Your task to perform on an android device: delete browsing data in the chrome app Image 0: 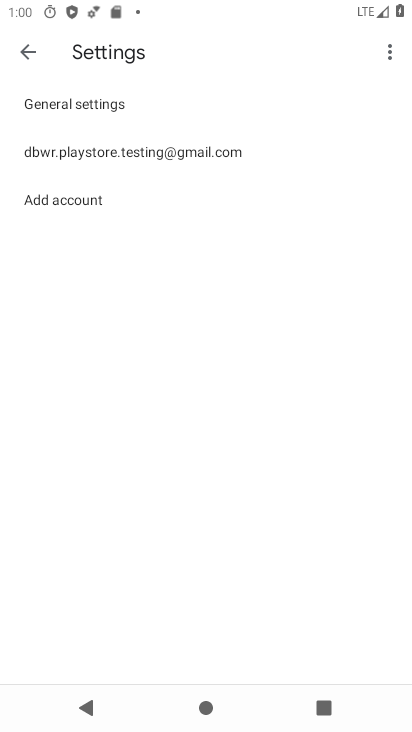
Step 0: press home button
Your task to perform on an android device: delete browsing data in the chrome app Image 1: 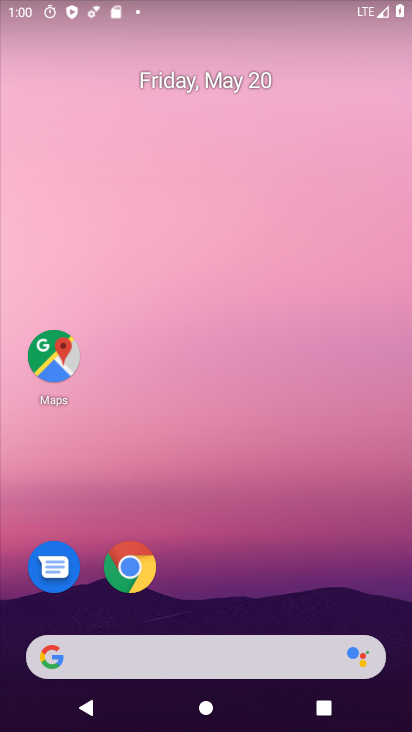
Step 1: click (132, 574)
Your task to perform on an android device: delete browsing data in the chrome app Image 2: 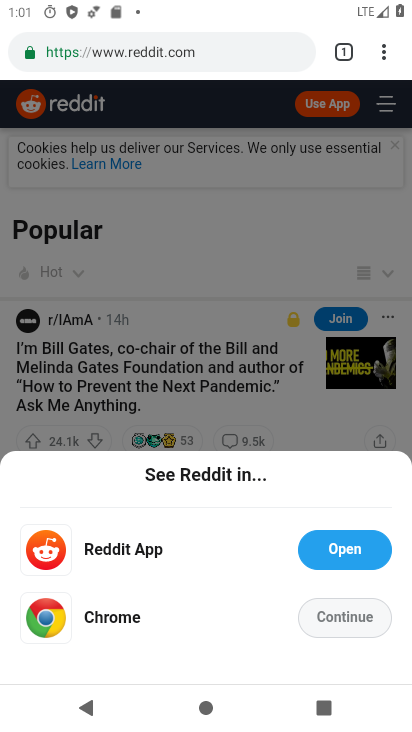
Step 2: click (393, 55)
Your task to perform on an android device: delete browsing data in the chrome app Image 3: 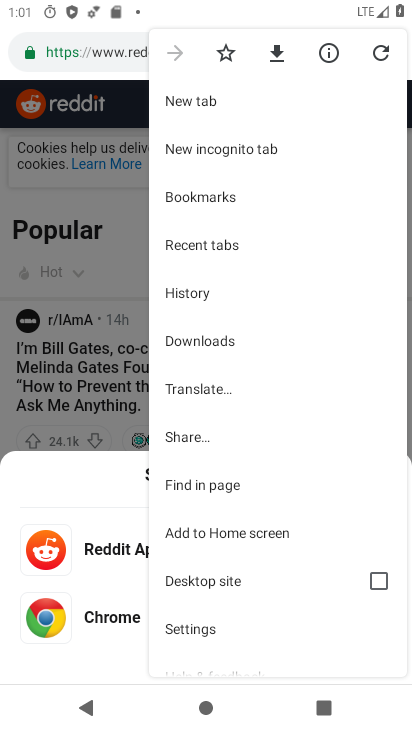
Step 3: click (231, 294)
Your task to perform on an android device: delete browsing data in the chrome app Image 4: 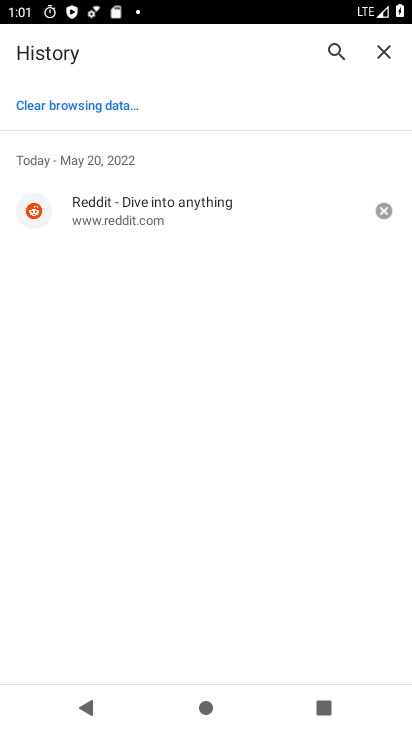
Step 4: click (85, 105)
Your task to perform on an android device: delete browsing data in the chrome app Image 5: 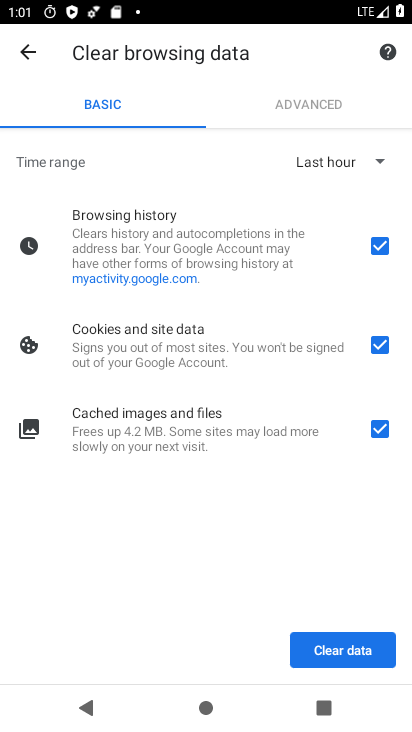
Step 5: click (374, 429)
Your task to perform on an android device: delete browsing data in the chrome app Image 6: 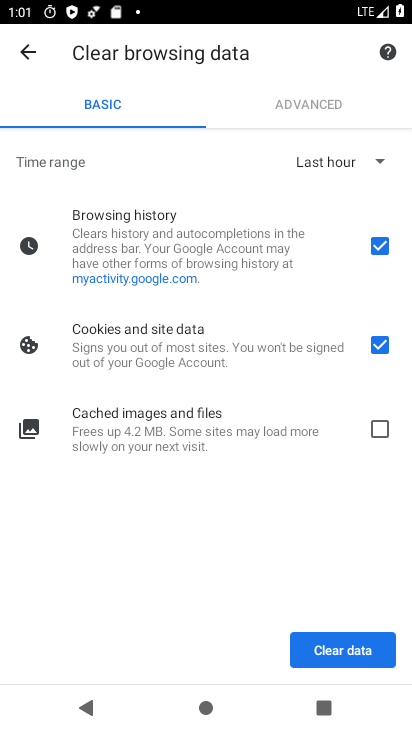
Step 6: click (374, 352)
Your task to perform on an android device: delete browsing data in the chrome app Image 7: 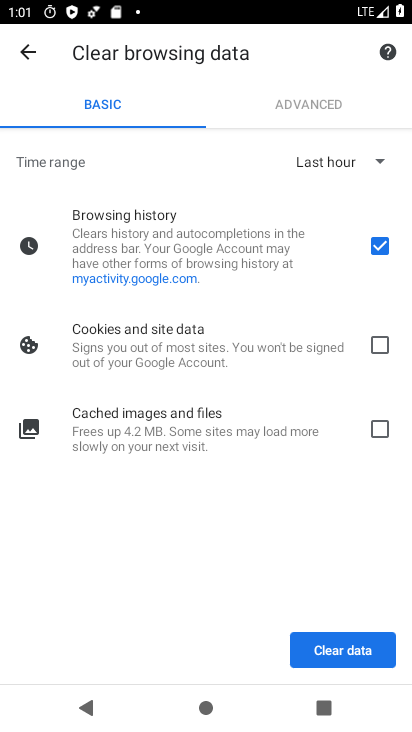
Step 7: click (368, 655)
Your task to perform on an android device: delete browsing data in the chrome app Image 8: 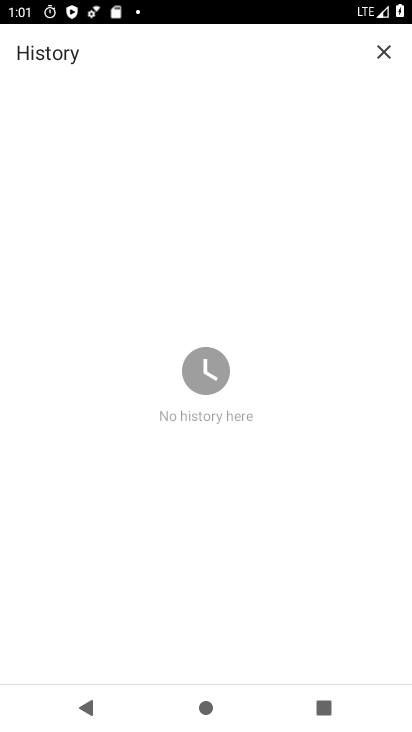
Step 8: task complete